Your task to perform on an android device: check battery use Image 0: 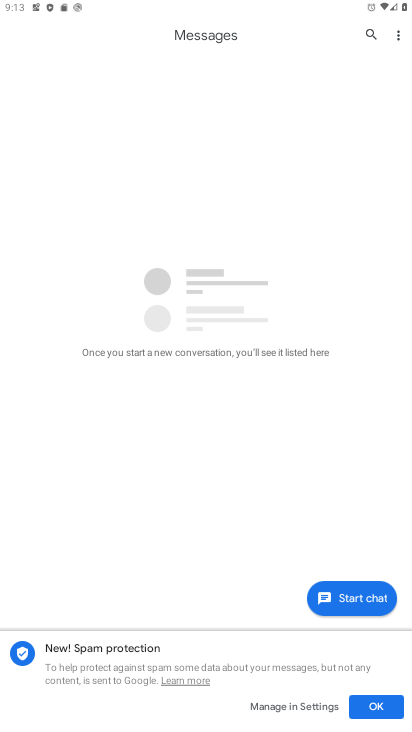
Step 0: press home button
Your task to perform on an android device: check battery use Image 1: 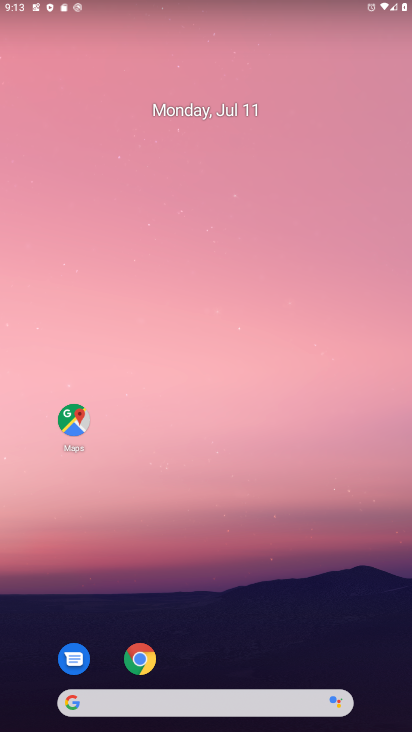
Step 1: drag from (212, 593) to (143, 57)
Your task to perform on an android device: check battery use Image 2: 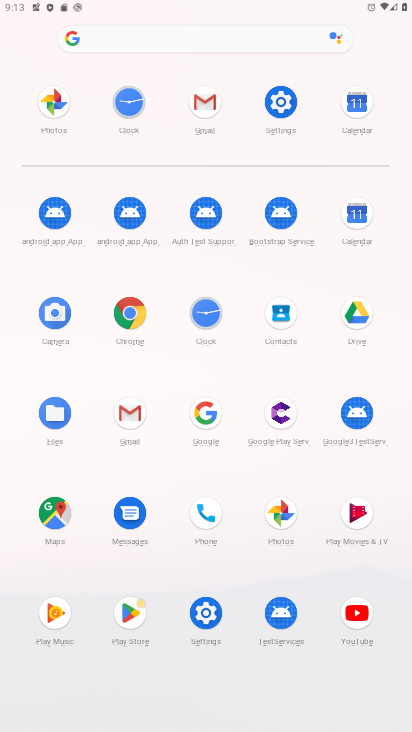
Step 2: click (281, 105)
Your task to perform on an android device: check battery use Image 3: 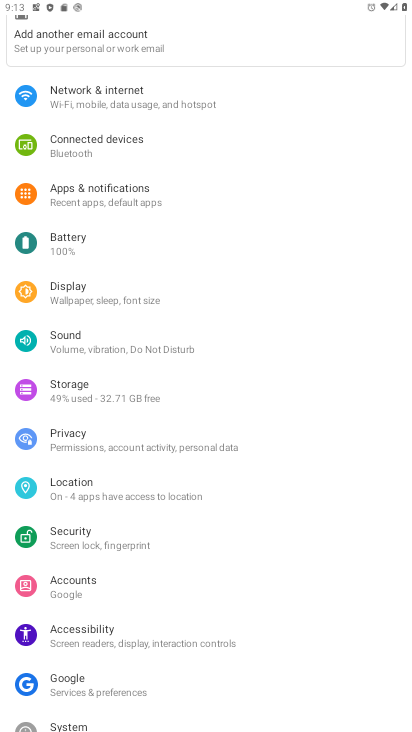
Step 3: click (65, 236)
Your task to perform on an android device: check battery use Image 4: 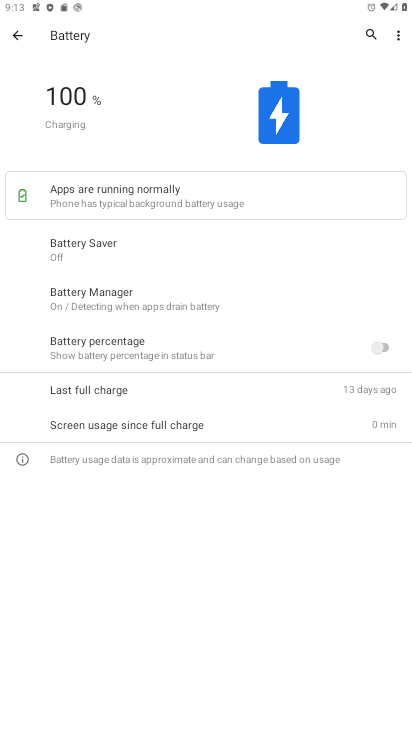
Step 4: task complete